Your task to perform on an android device: toggle wifi Image 0: 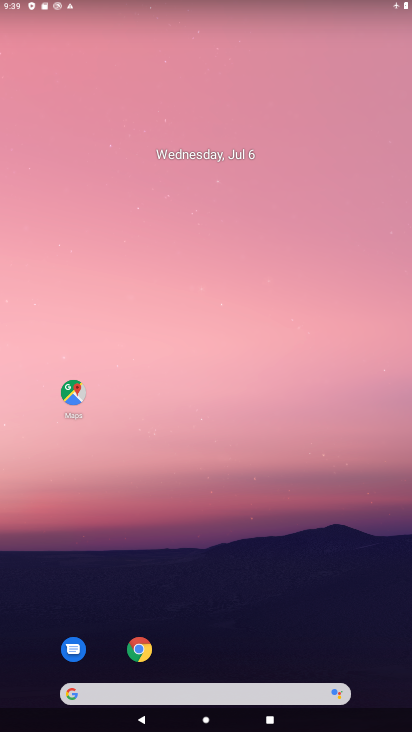
Step 0: drag from (362, 596) to (328, 155)
Your task to perform on an android device: toggle wifi Image 1: 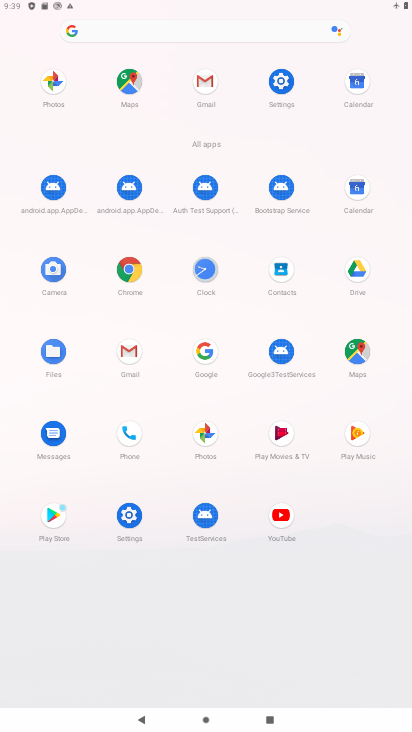
Step 1: click (271, 80)
Your task to perform on an android device: toggle wifi Image 2: 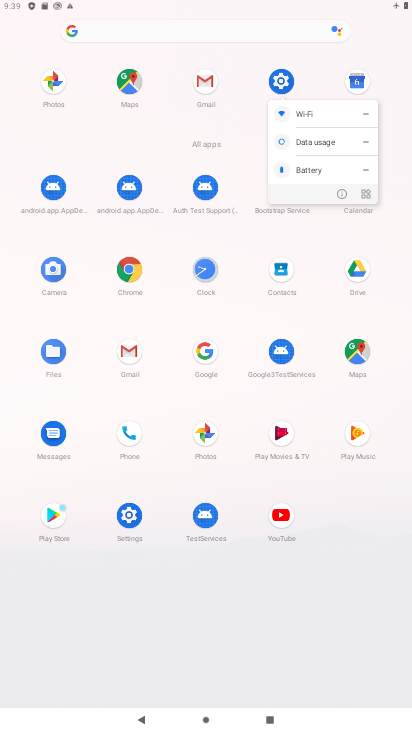
Step 2: click (273, 77)
Your task to perform on an android device: toggle wifi Image 3: 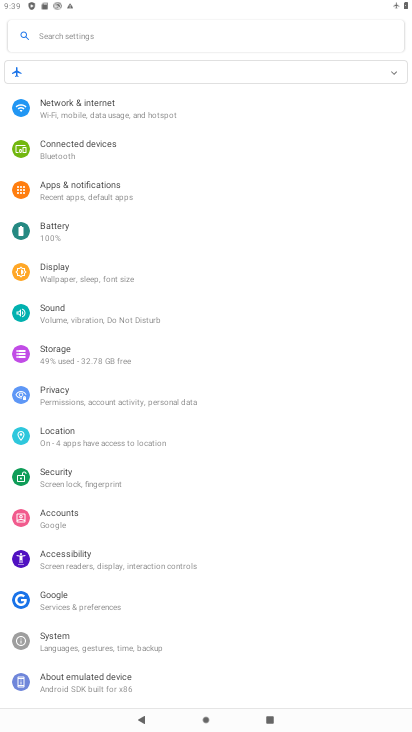
Step 3: click (95, 108)
Your task to perform on an android device: toggle wifi Image 4: 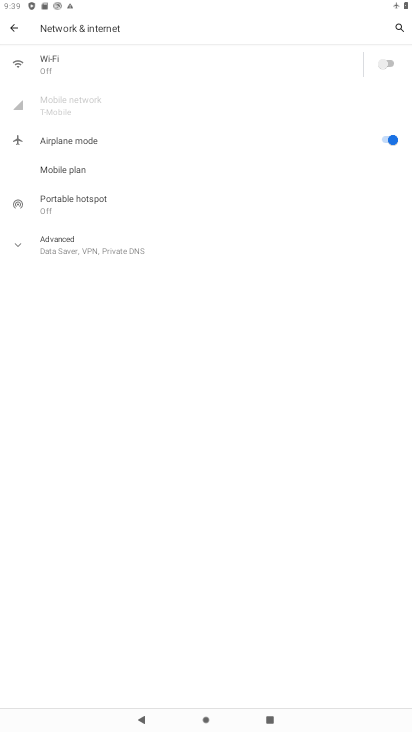
Step 4: click (385, 59)
Your task to perform on an android device: toggle wifi Image 5: 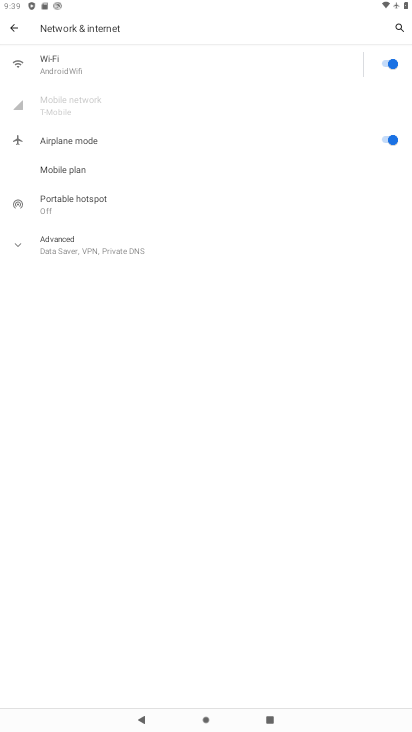
Step 5: task complete